Your task to perform on an android device: Open Reddit.com Image 0: 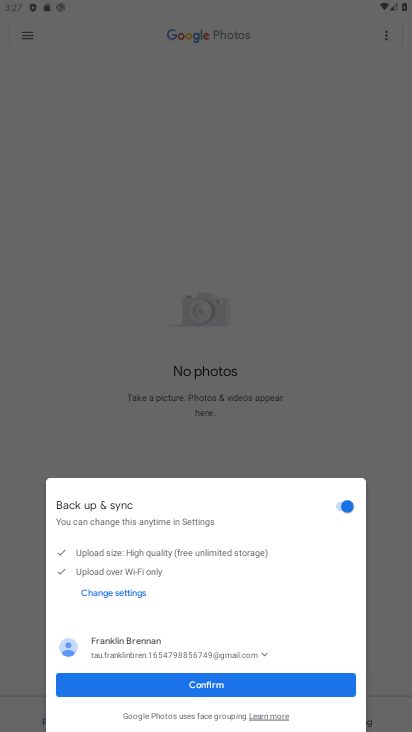
Step 0: press home button
Your task to perform on an android device: Open Reddit.com Image 1: 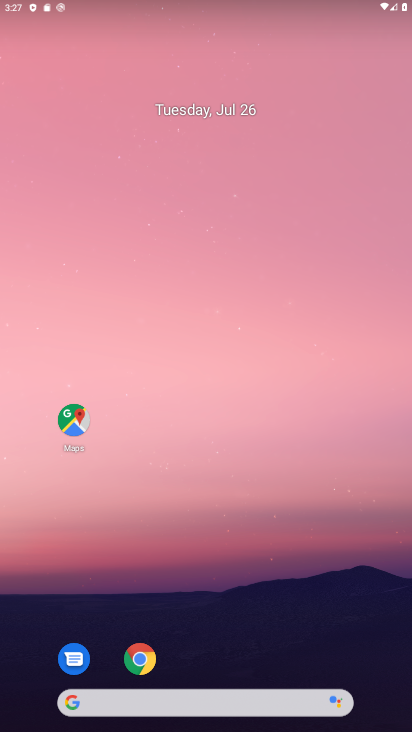
Step 1: drag from (261, 345) to (259, 4)
Your task to perform on an android device: Open Reddit.com Image 2: 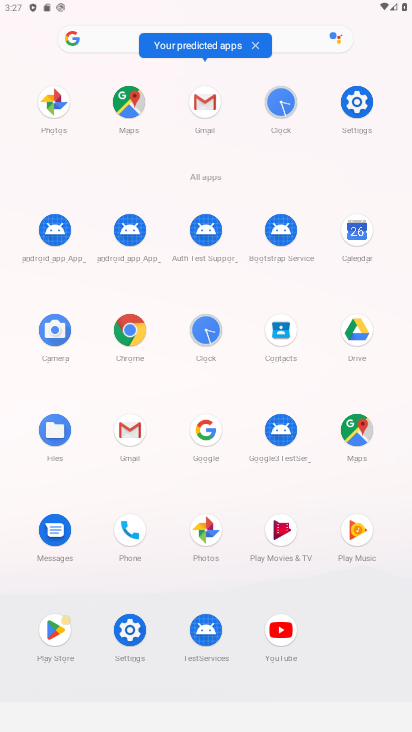
Step 2: click (128, 330)
Your task to perform on an android device: Open Reddit.com Image 3: 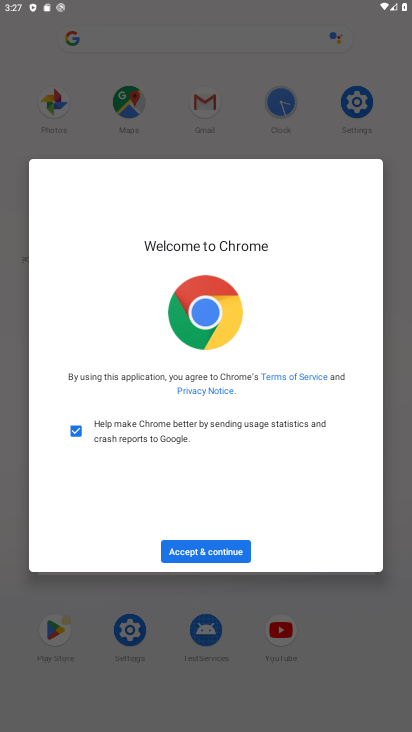
Step 3: click (220, 557)
Your task to perform on an android device: Open Reddit.com Image 4: 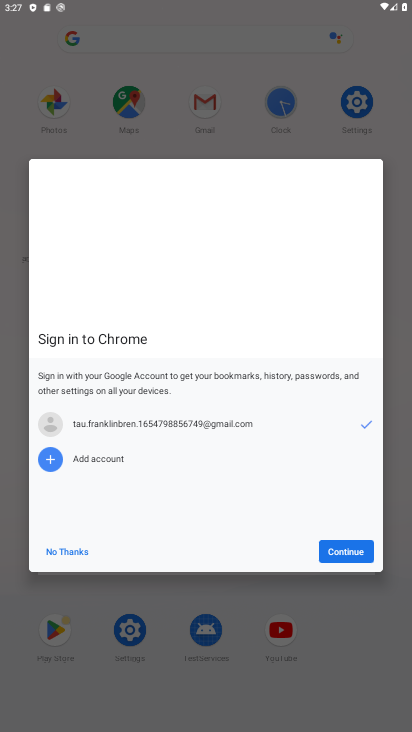
Step 4: click (50, 553)
Your task to perform on an android device: Open Reddit.com Image 5: 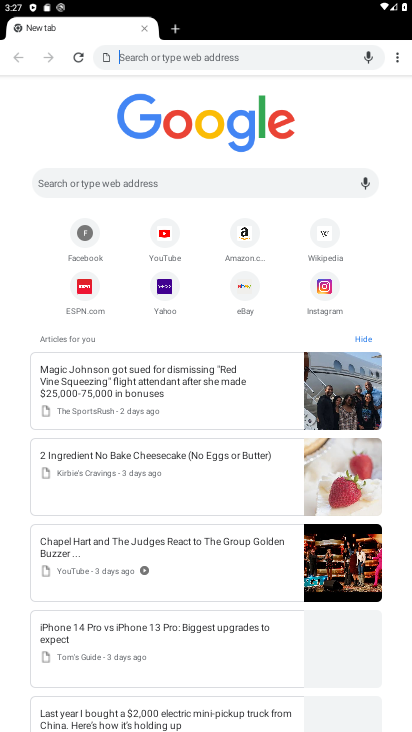
Step 5: click (190, 177)
Your task to perform on an android device: Open Reddit.com Image 6: 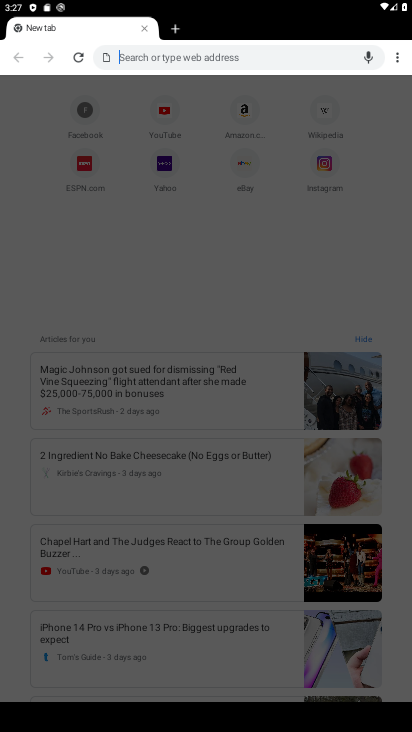
Step 6: type "Reddit.com"
Your task to perform on an android device: Open Reddit.com Image 7: 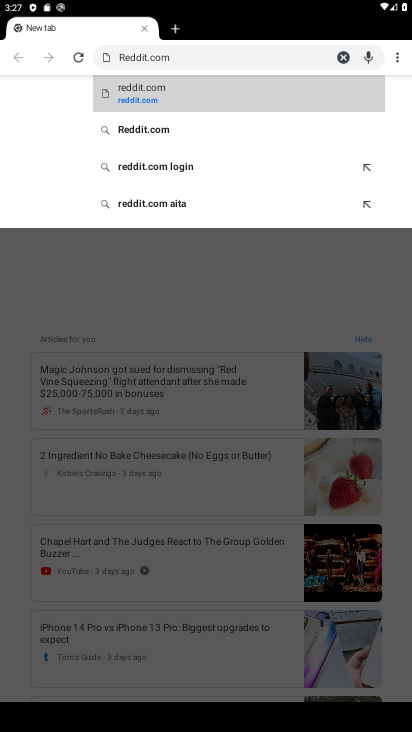
Step 7: click (114, 98)
Your task to perform on an android device: Open Reddit.com Image 8: 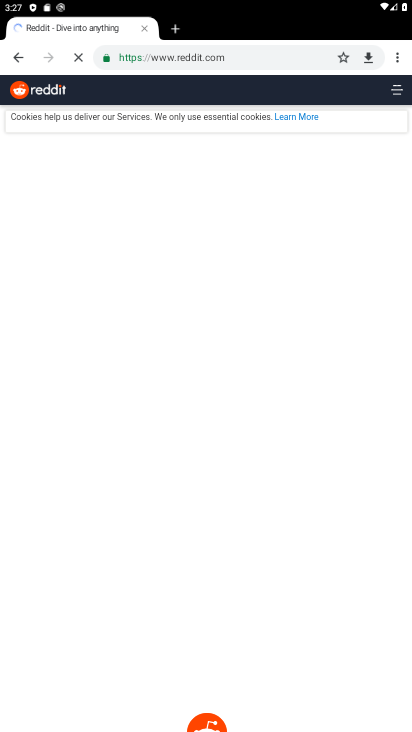
Step 8: task complete